Your task to perform on an android device: add a label to a message in the gmail app Image 0: 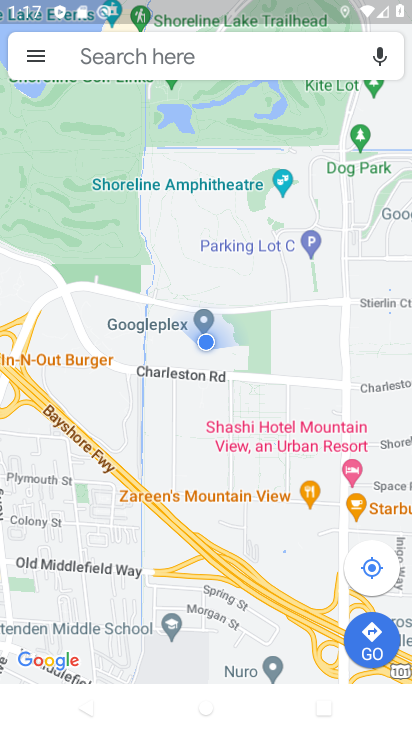
Step 0: press home button
Your task to perform on an android device: add a label to a message in the gmail app Image 1: 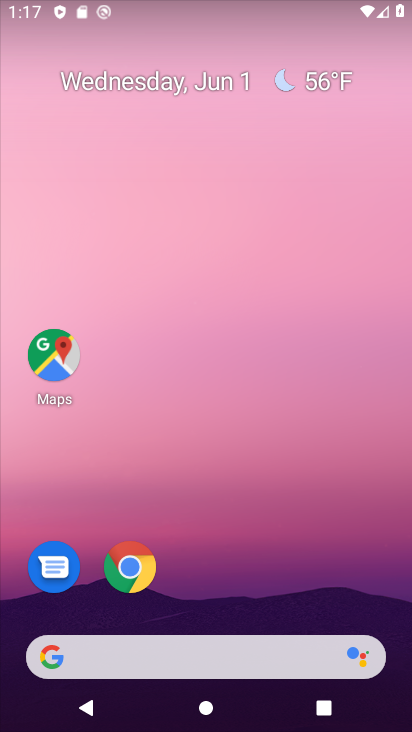
Step 1: drag from (190, 659) to (182, 48)
Your task to perform on an android device: add a label to a message in the gmail app Image 2: 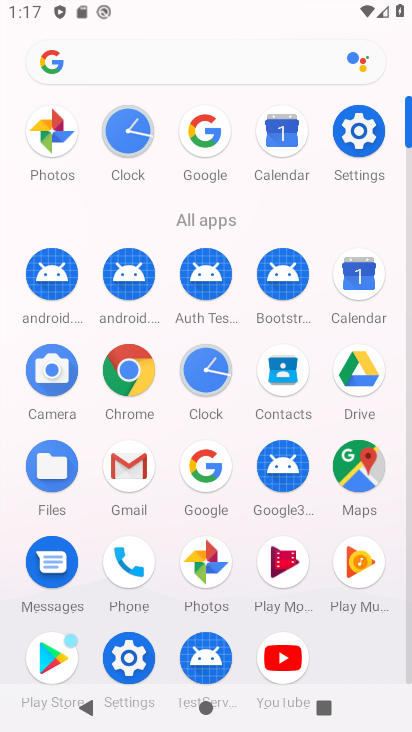
Step 2: click (104, 459)
Your task to perform on an android device: add a label to a message in the gmail app Image 3: 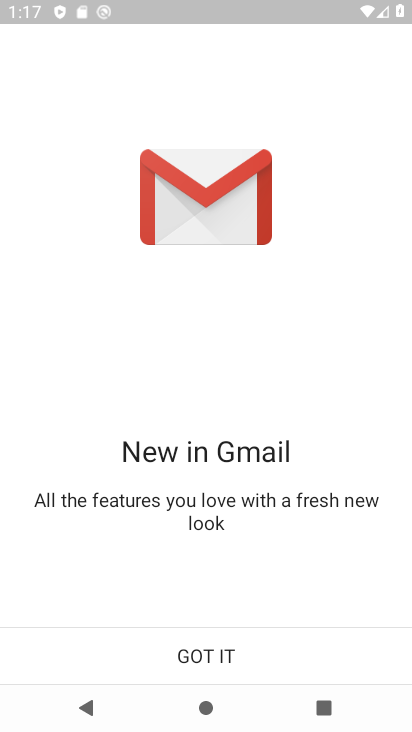
Step 3: click (218, 646)
Your task to perform on an android device: add a label to a message in the gmail app Image 4: 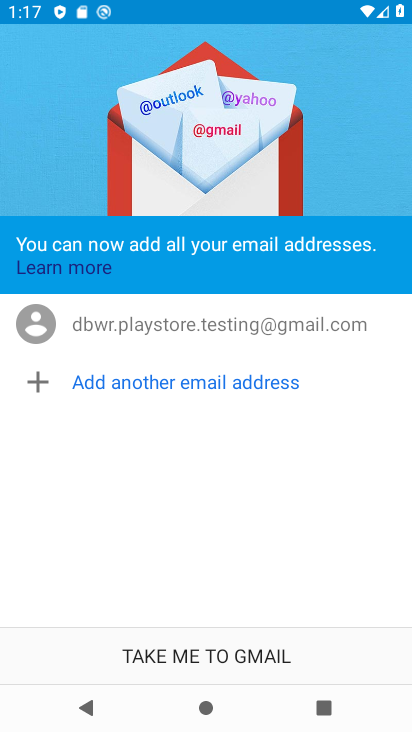
Step 4: click (218, 646)
Your task to perform on an android device: add a label to a message in the gmail app Image 5: 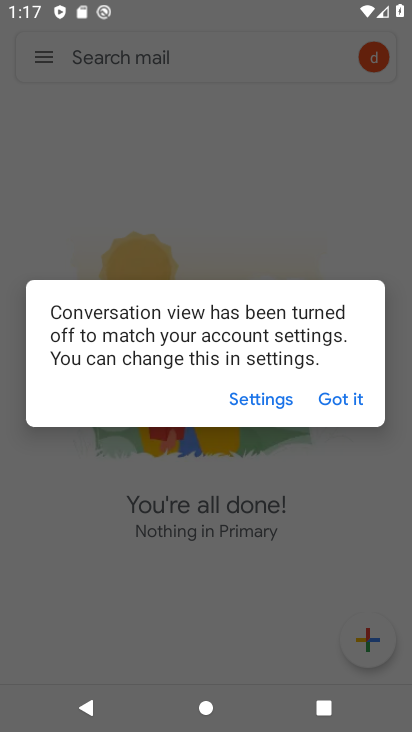
Step 5: click (326, 387)
Your task to perform on an android device: add a label to a message in the gmail app Image 6: 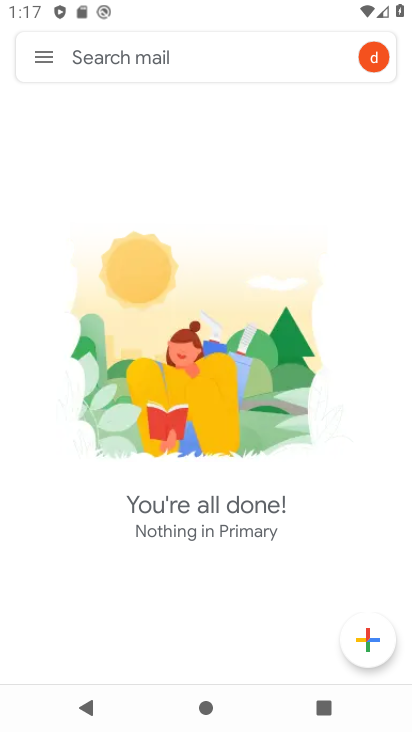
Step 6: click (42, 57)
Your task to perform on an android device: add a label to a message in the gmail app Image 7: 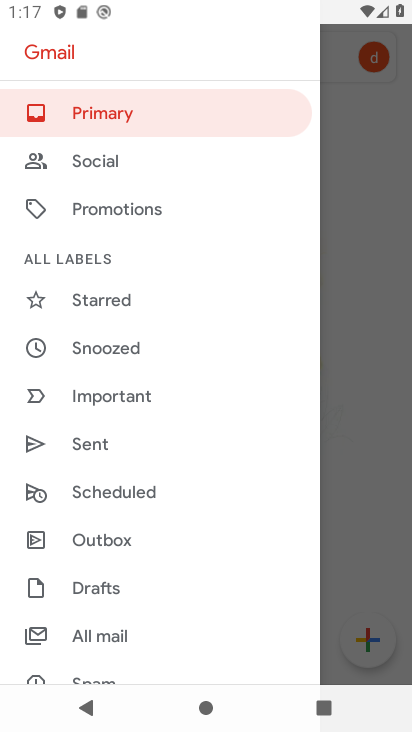
Step 7: click (143, 629)
Your task to perform on an android device: add a label to a message in the gmail app Image 8: 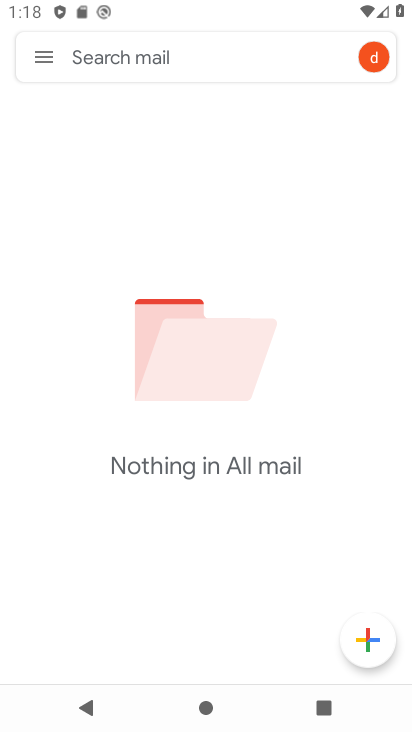
Step 8: task complete